Your task to perform on an android device: turn off sleep mode Image 0: 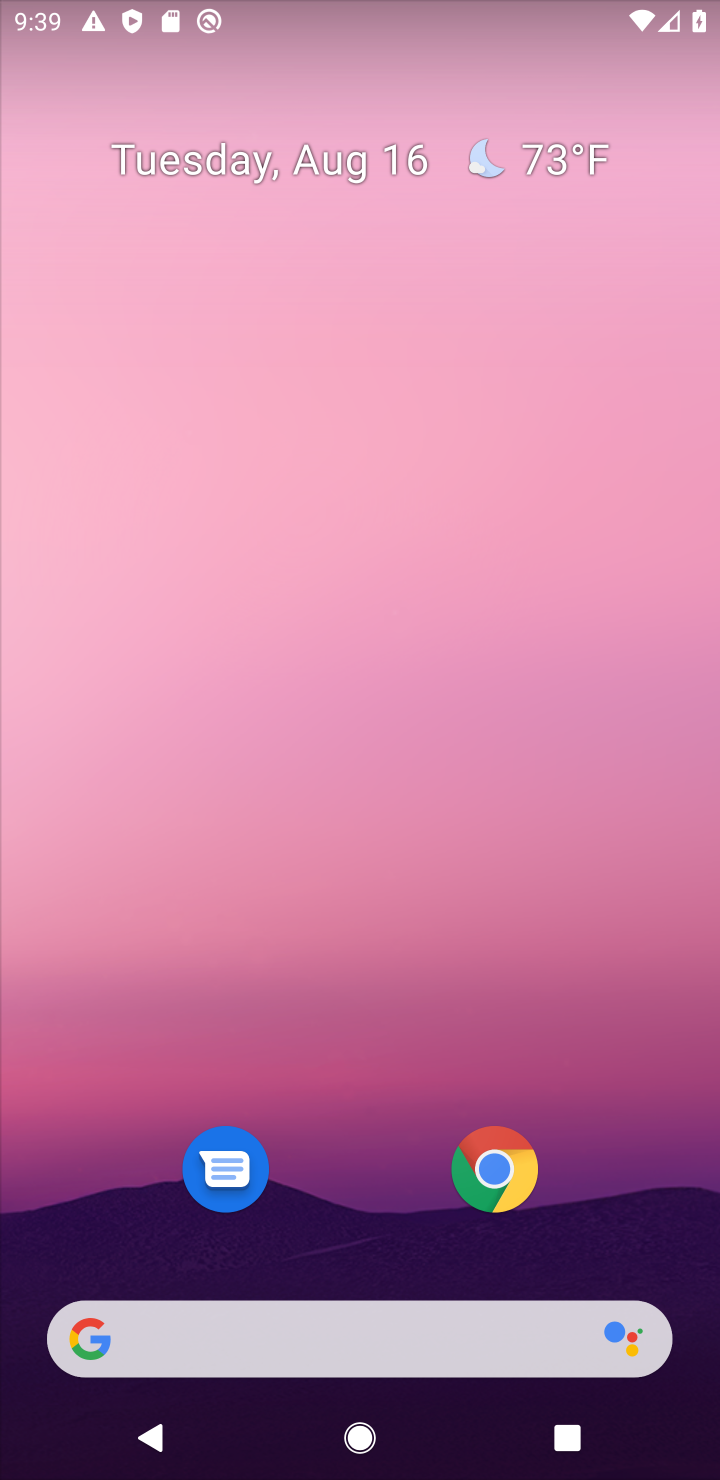
Step 0: click (381, 1264)
Your task to perform on an android device: turn off sleep mode Image 1: 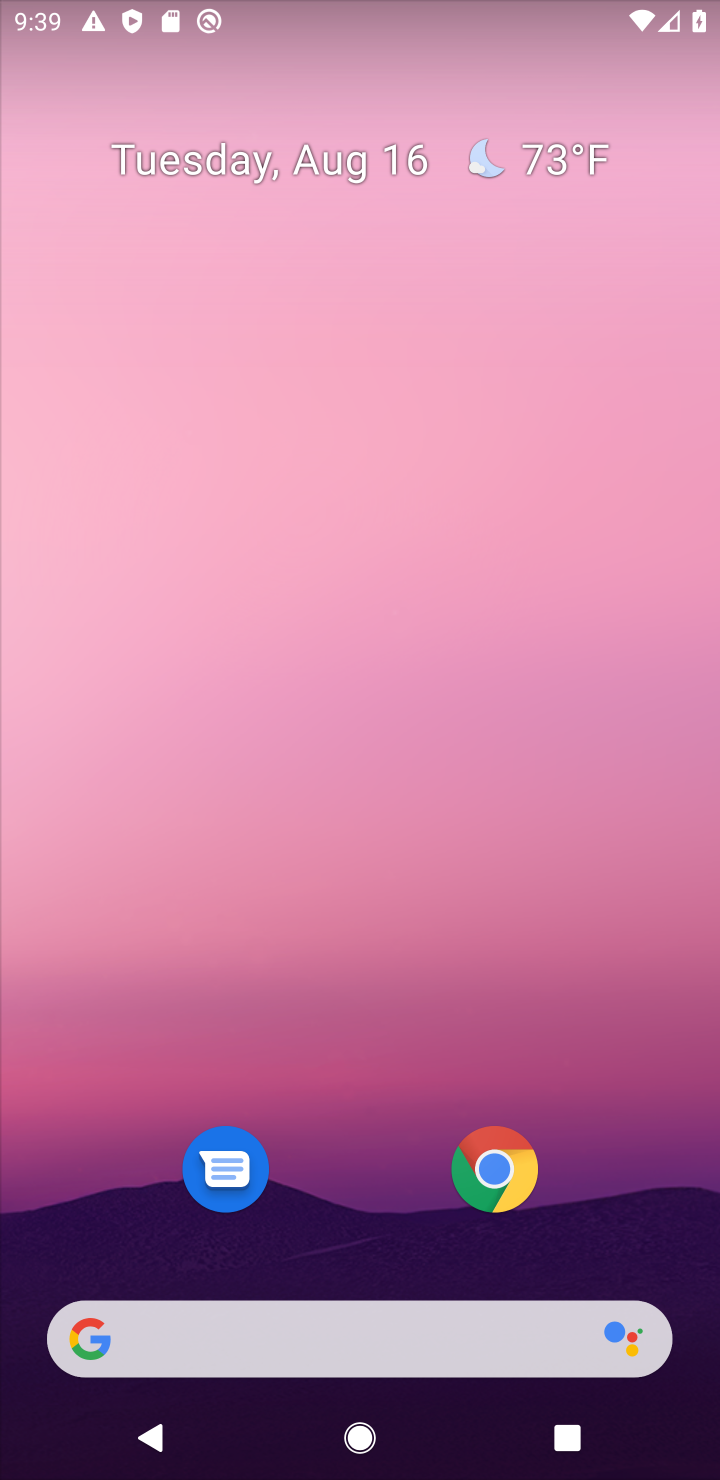
Step 1: task complete